Your task to perform on an android device: Open battery settings Image 0: 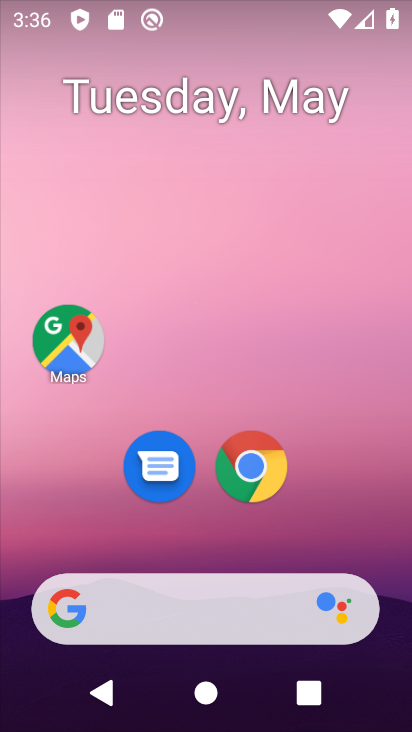
Step 0: drag from (168, 720) to (182, 52)
Your task to perform on an android device: Open battery settings Image 1: 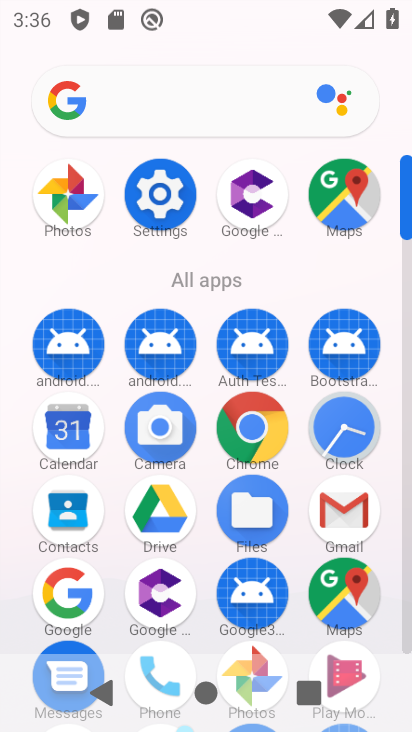
Step 1: click (167, 205)
Your task to perform on an android device: Open battery settings Image 2: 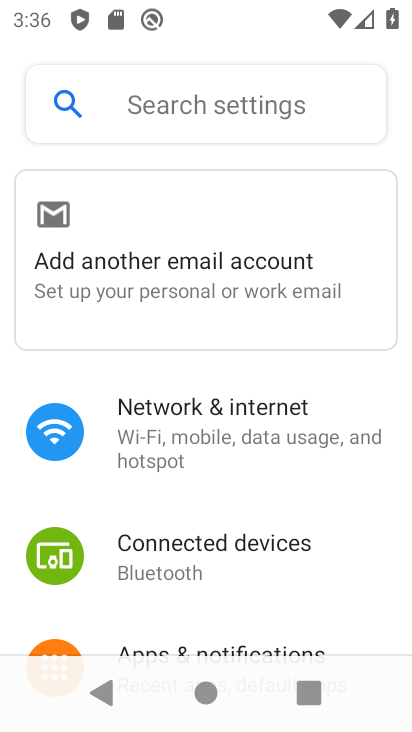
Step 2: drag from (248, 626) to (255, 199)
Your task to perform on an android device: Open battery settings Image 3: 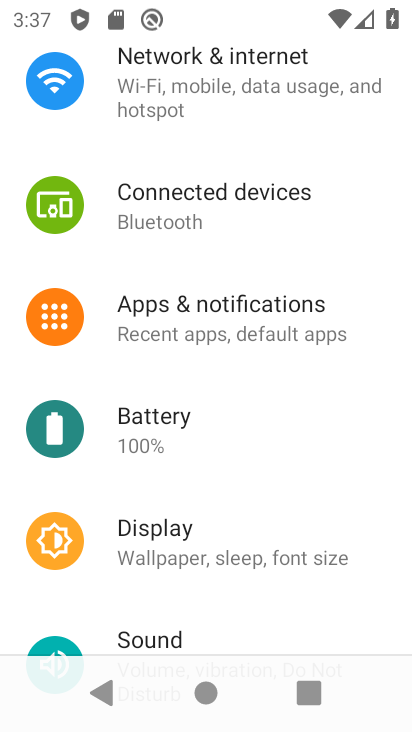
Step 3: click (194, 434)
Your task to perform on an android device: Open battery settings Image 4: 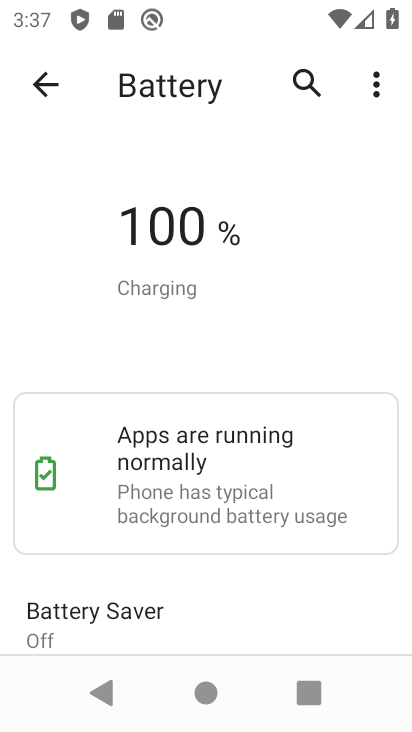
Step 4: task complete